Your task to perform on an android device: Open settings on Google Maps Image 0: 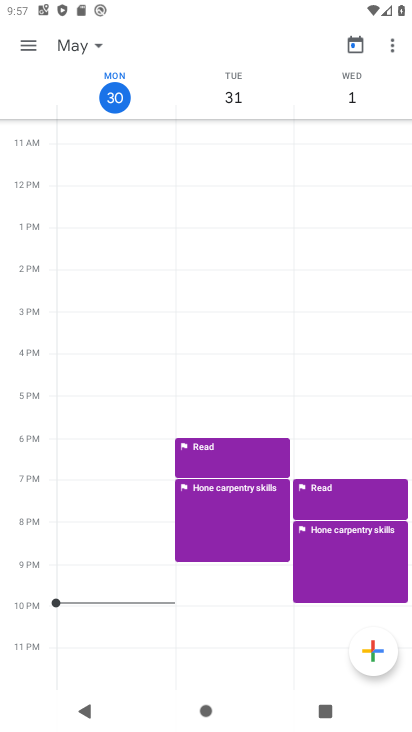
Step 0: press home button
Your task to perform on an android device: Open settings on Google Maps Image 1: 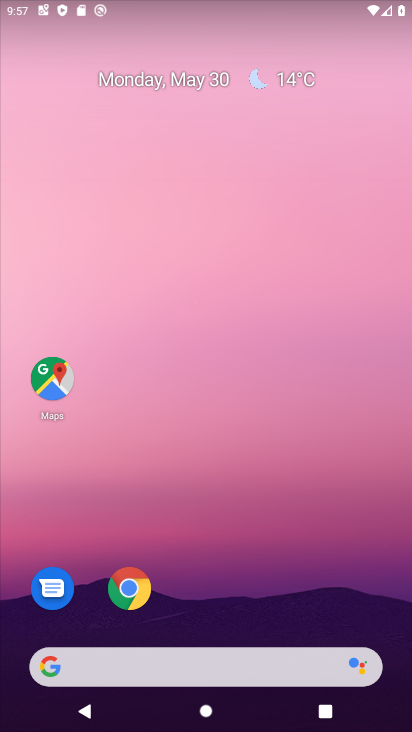
Step 1: drag from (211, 606) to (297, 16)
Your task to perform on an android device: Open settings on Google Maps Image 2: 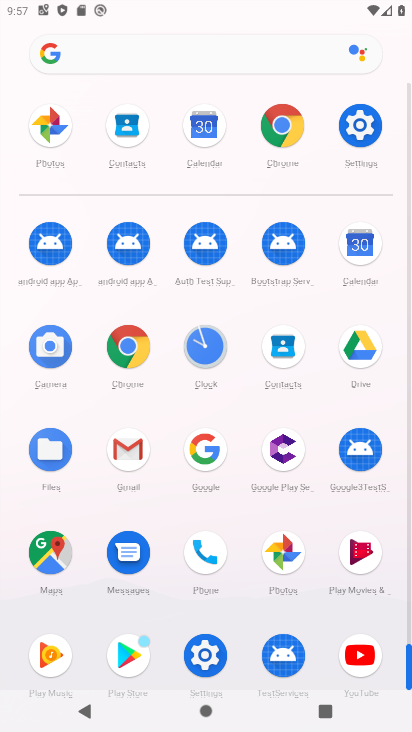
Step 2: click (62, 551)
Your task to perform on an android device: Open settings on Google Maps Image 3: 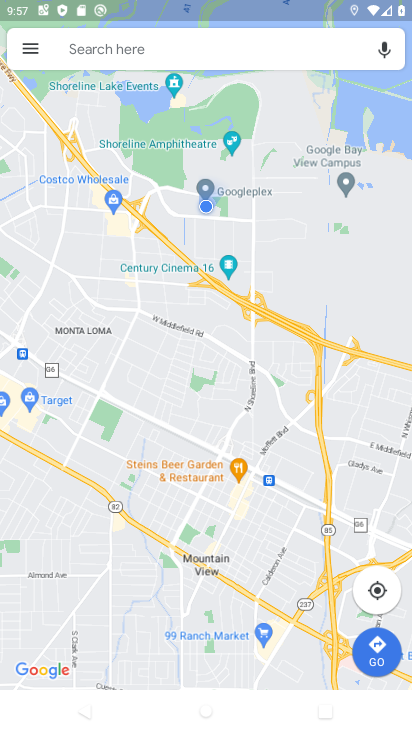
Step 3: click (32, 44)
Your task to perform on an android device: Open settings on Google Maps Image 4: 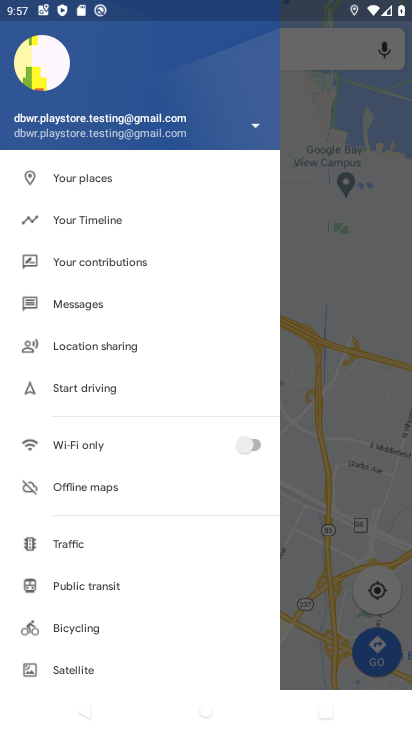
Step 4: drag from (114, 612) to (209, 16)
Your task to perform on an android device: Open settings on Google Maps Image 5: 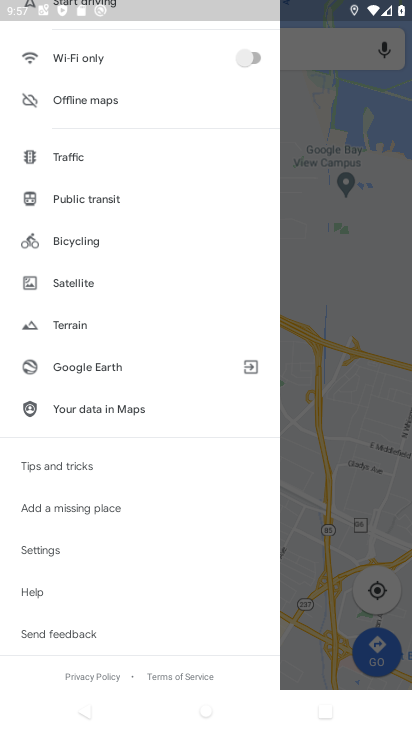
Step 5: click (65, 556)
Your task to perform on an android device: Open settings on Google Maps Image 6: 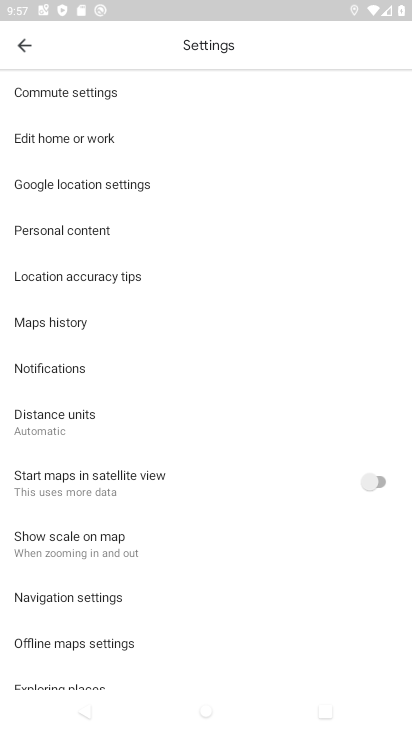
Step 6: task complete